Your task to perform on an android device: toggle show notifications on the lock screen Image 0: 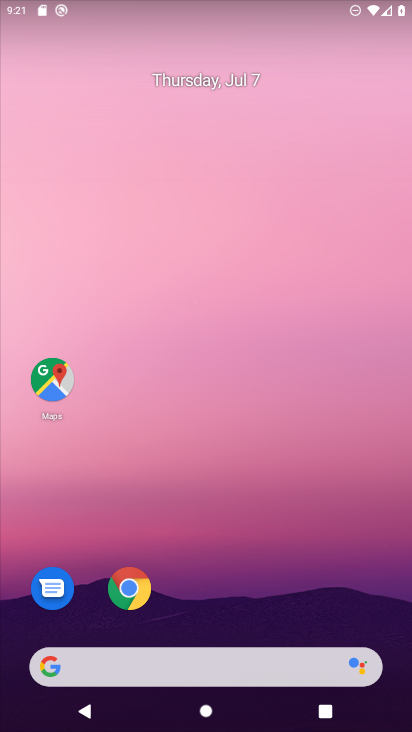
Step 0: drag from (220, 9) to (237, 629)
Your task to perform on an android device: toggle show notifications on the lock screen Image 1: 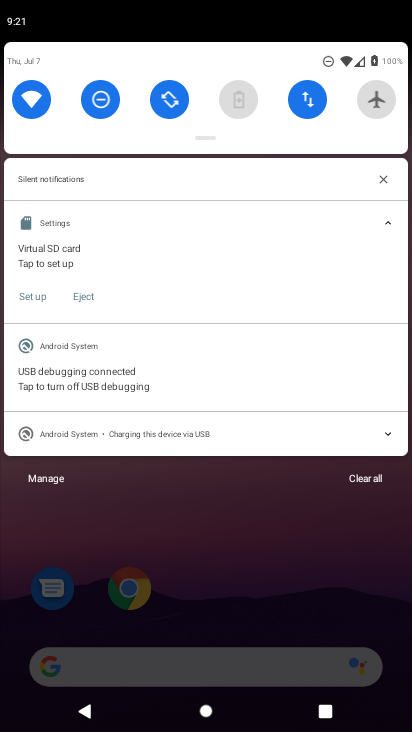
Step 1: drag from (244, 409) to (221, 654)
Your task to perform on an android device: toggle show notifications on the lock screen Image 2: 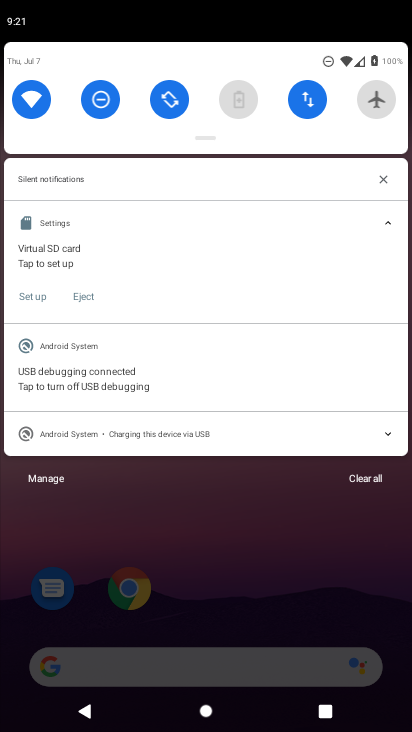
Step 2: drag from (208, 73) to (244, 598)
Your task to perform on an android device: toggle show notifications on the lock screen Image 3: 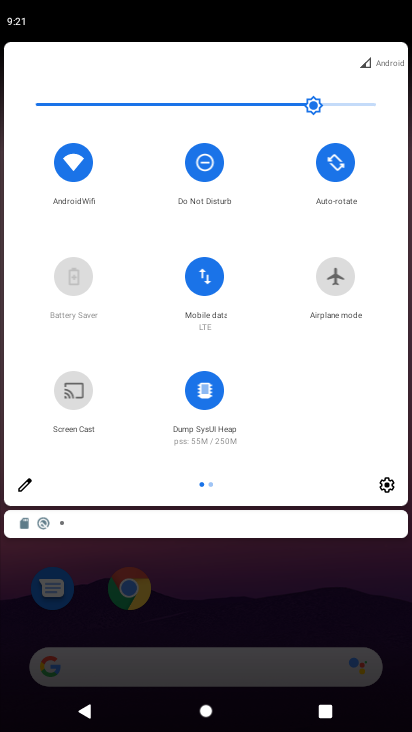
Step 3: click (385, 482)
Your task to perform on an android device: toggle show notifications on the lock screen Image 4: 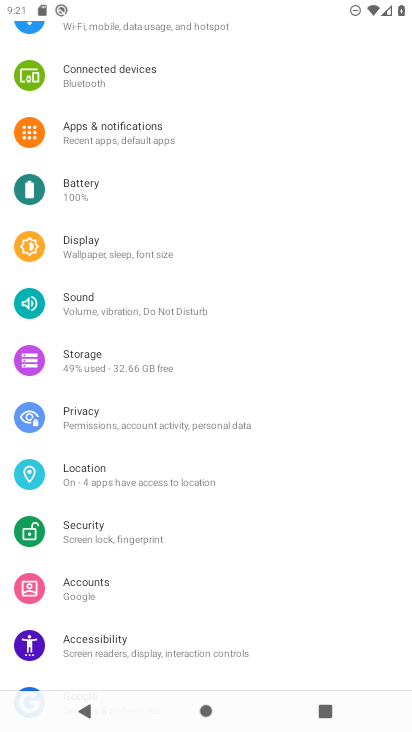
Step 4: click (182, 138)
Your task to perform on an android device: toggle show notifications on the lock screen Image 5: 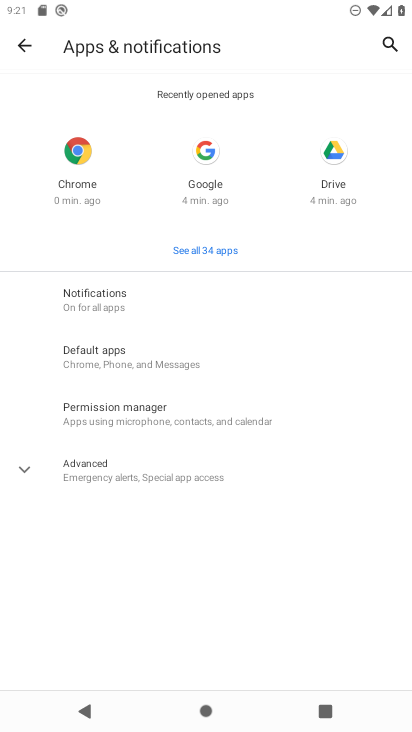
Step 5: click (159, 300)
Your task to perform on an android device: toggle show notifications on the lock screen Image 6: 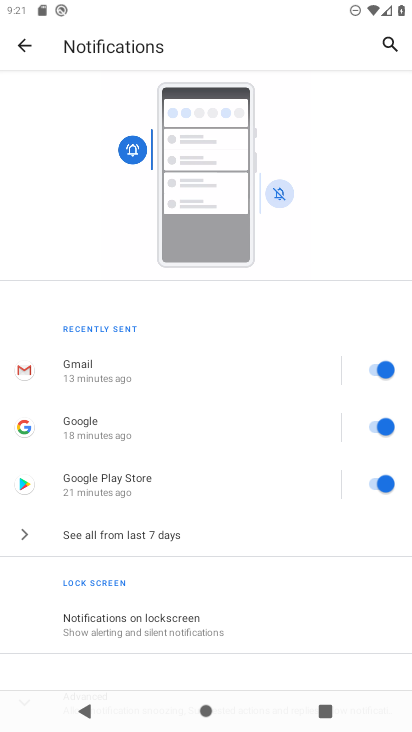
Step 6: click (169, 629)
Your task to perform on an android device: toggle show notifications on the lock screen Image 7: 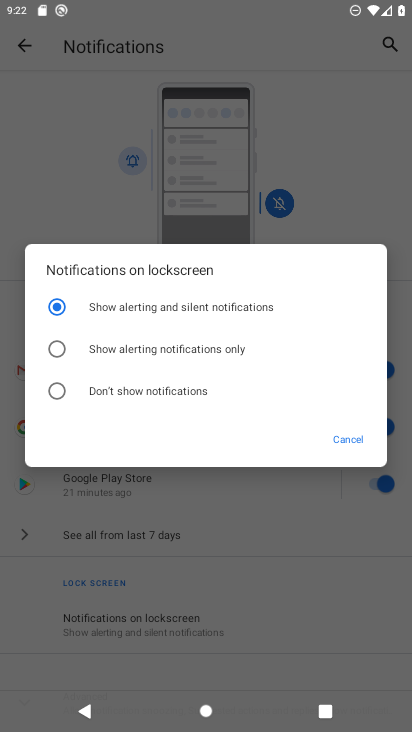
Step 7: task complete